Your task to perform on an android device: open the mobile data screen to see how much data has been used Image 0: 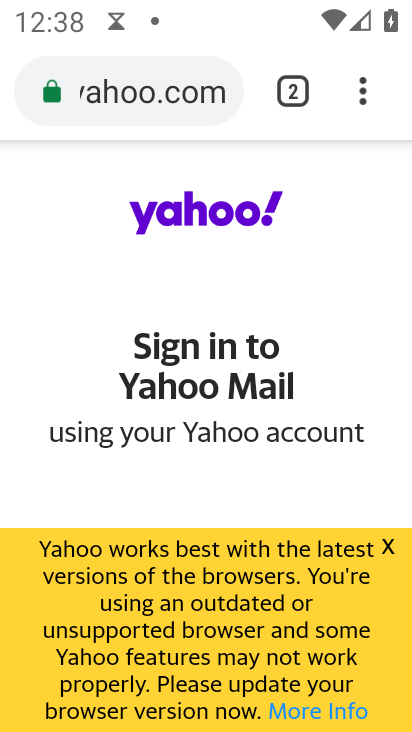
Step 0: press home button
Your task to perform on an android device: open the mobile data screen to see how much data has been used Image 1: 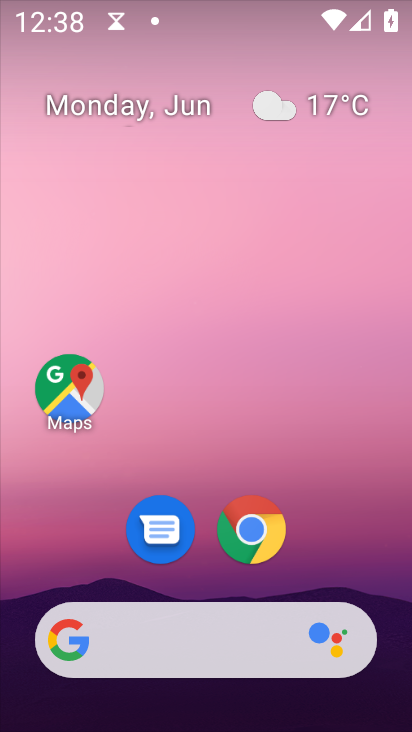
Step 1: drag from (371, 542) to (258, 31)
Your task to perform on an android device: open the mobile data screen to see how much data has been used Image 2: 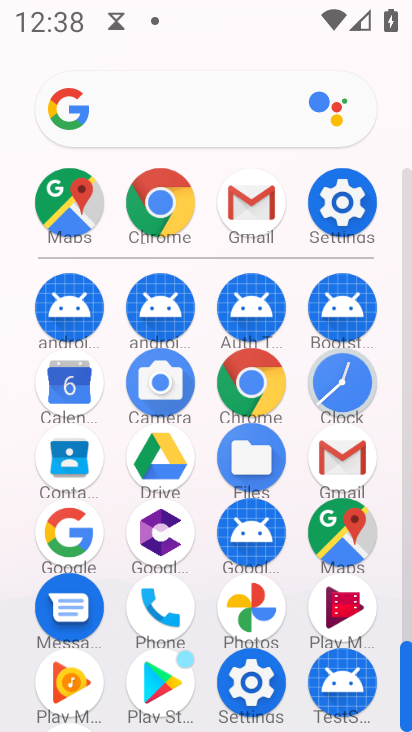
Step 2: click (364, 214)
Your task to perform on an android device: open the mobile data screen to see how much data has been used Image 3: 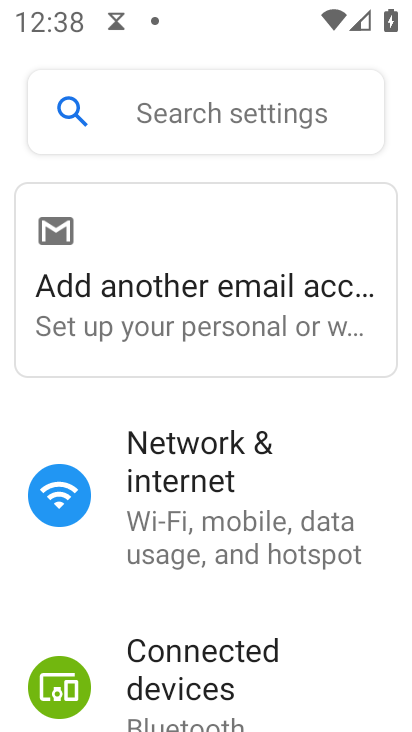
Step 3: drag from (164, 555) to (252, 132)
Your task to perform on an android device: open the mobile data screen to see how much data has been used Image 4: 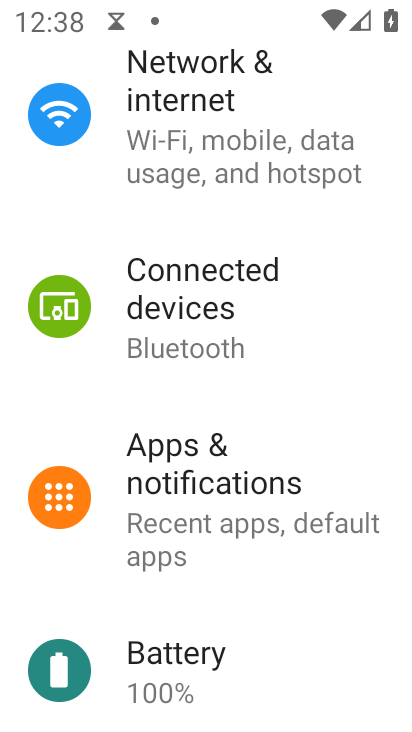
Step 4: drag from (253, 175) to (183, 611)
Your task to perform on an android device: open the mobile data screen to see how much data has been used Image 5: 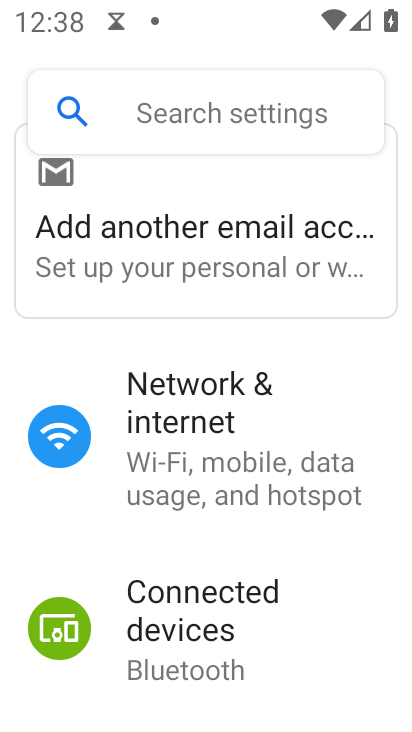
Step 5: click (242, 491)
Your task to perform on an android device: open the mobile data screen to see how much data has been used Image 6: 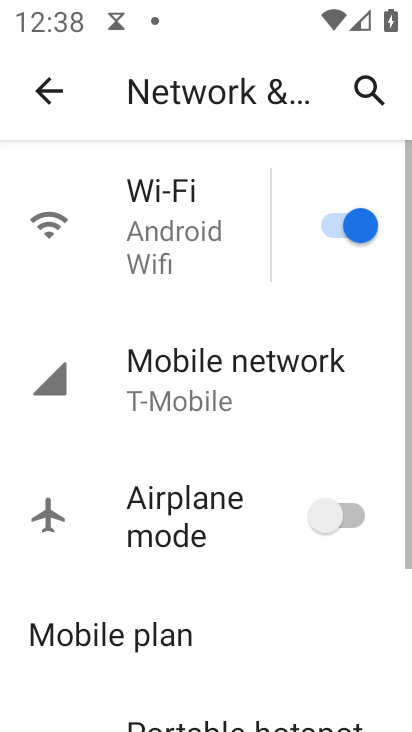
Step 6: click (225, 364)
Your task to perform on an android device: open the mobile data screen to see how much data has been used Image 7: 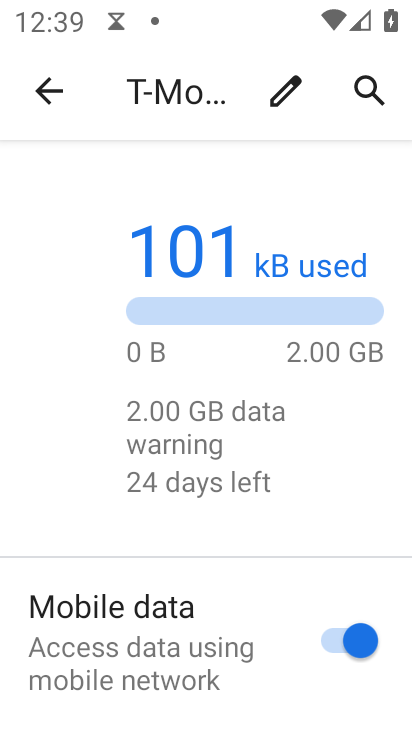
Step 7: task complete